Your task to perform on an android device: Open display settings Image 0: 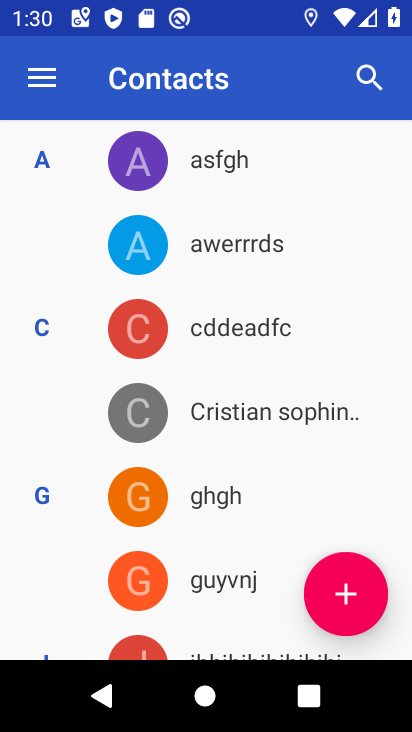
Step 0: press back button
Your task to perform on an android device: Open display settings Image 1: 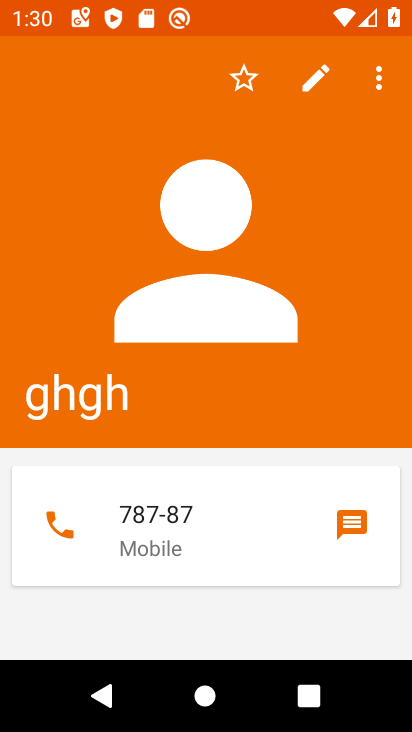
Step 1: press back button
Your task to perform on an android device: Open display settings Image 2: 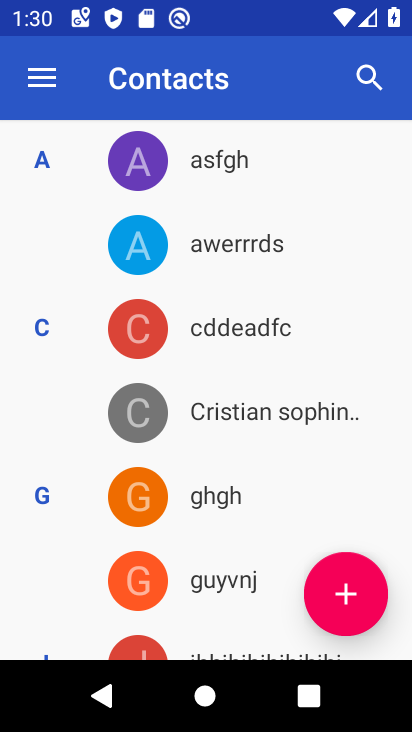
Step 2: press back button
Your task to perform on an android device: Open display settings Image 3: 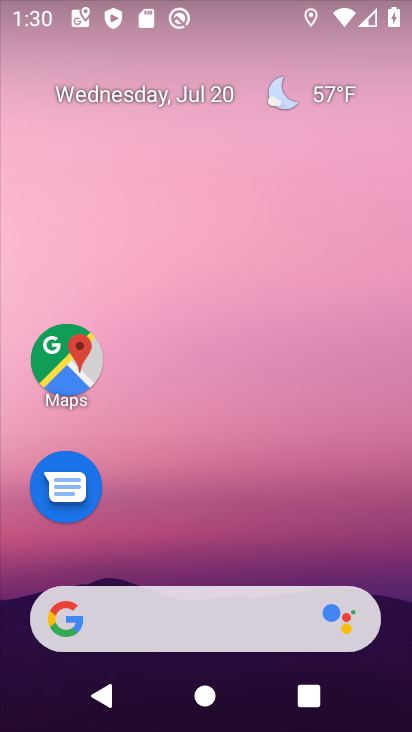
Step 3: drag from (189, 554) to (329, 27)
Your task to perform on an android device: Open display settings Image 4: 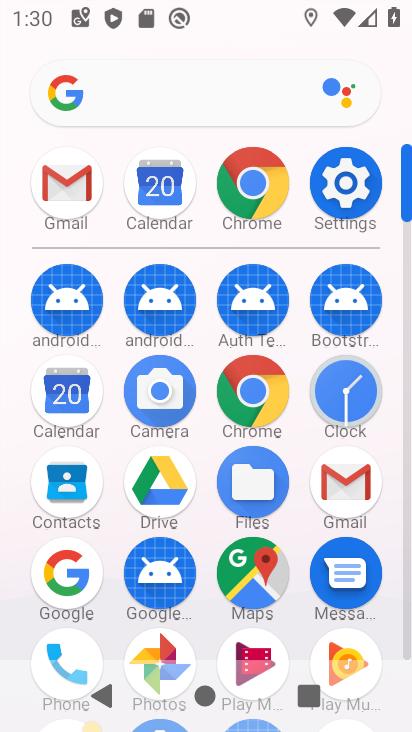
Step 4: click (355, 180)
Your task to perform on an android device: Open display settings Image 5: 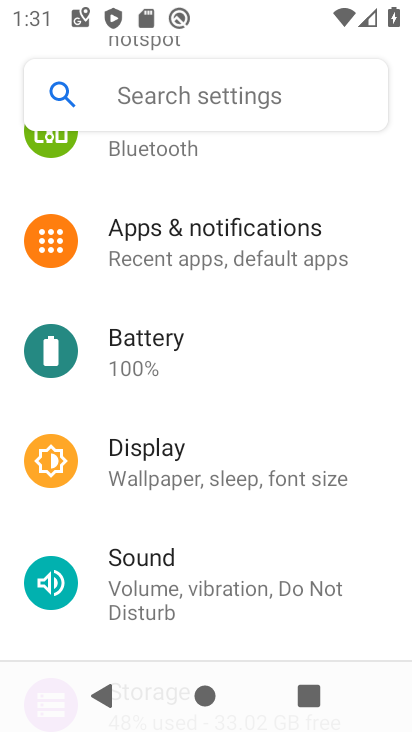
Step 5: click (178, 492)
Your task to perform on an android device: Open display settings Image 6: 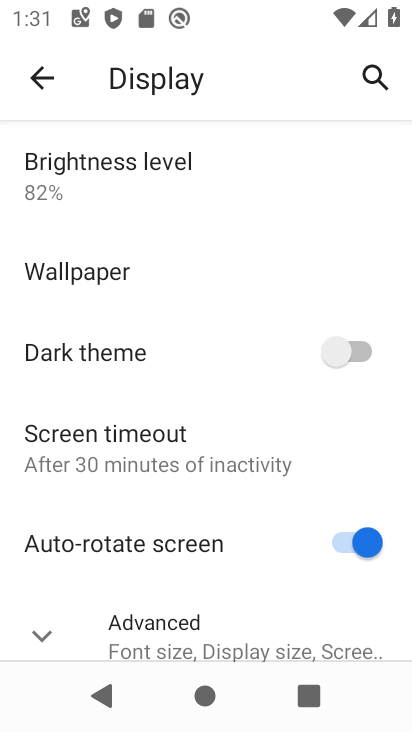
Step 6: task complete